Your task to perform on an android device: turn off airplane mode Image 0: 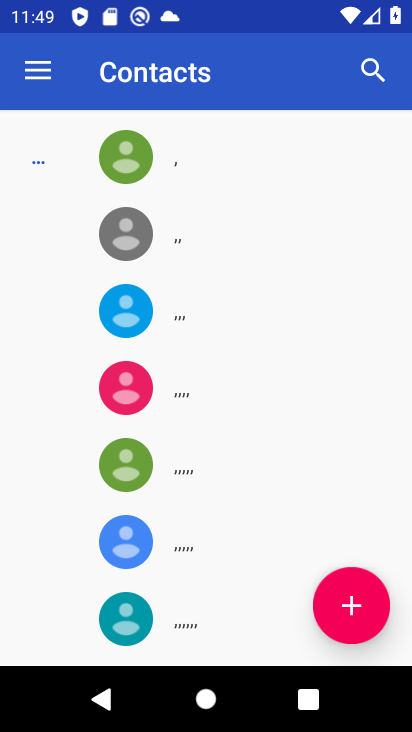
Step 0: press home button
Your task to perform on an android device: turn off airplane mode Image 1: 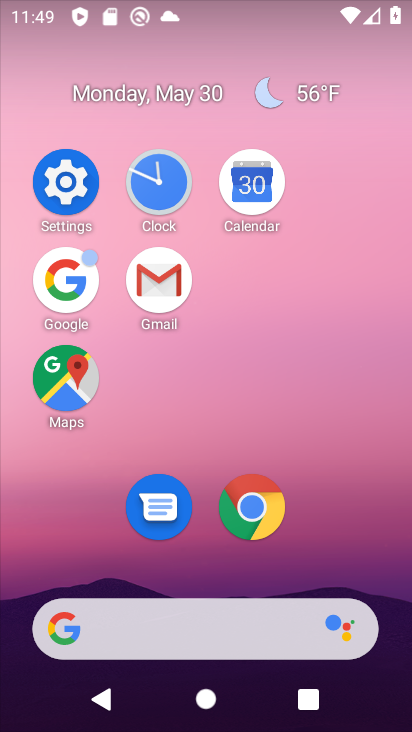
Step 1: click (106, 168)
Your task to perform on an android device: turn off airplane mode Image 2: 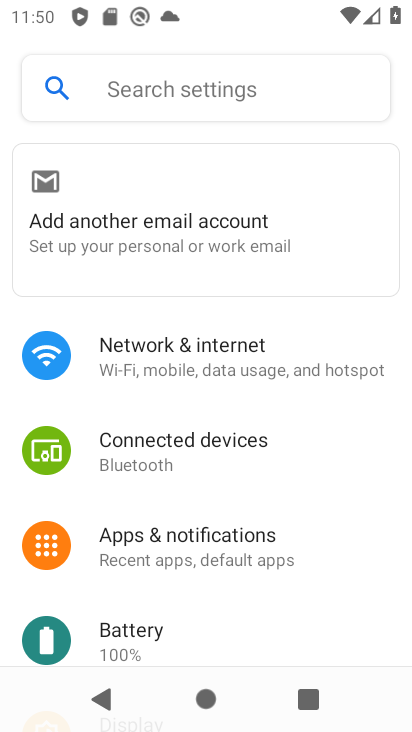
Step 2: click (314, 341)
Your task to perform on an android device: turn off airplane mode Image 3: 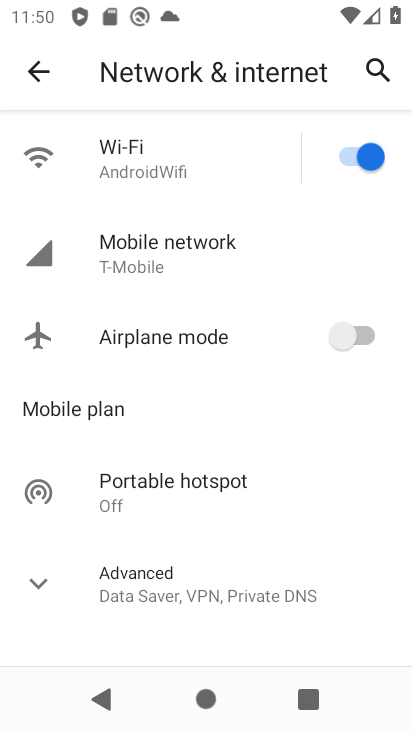
Step 3: task complete